Your task to perform on an android device: Go to accessibility settings Image 0: 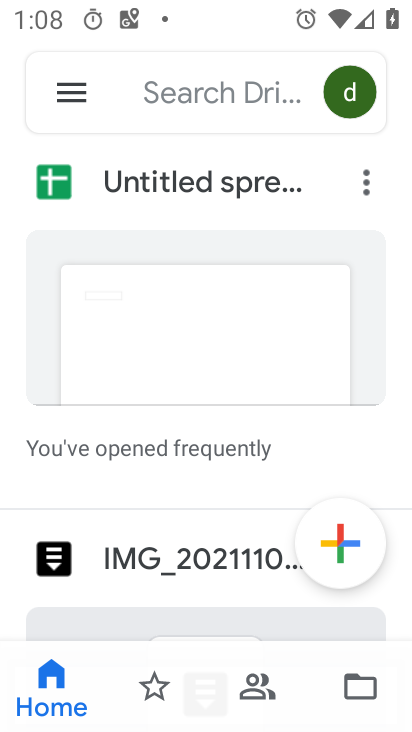
Step 0: press back button
Your task to perform on an android device: Go to accessibility settings Image 1: 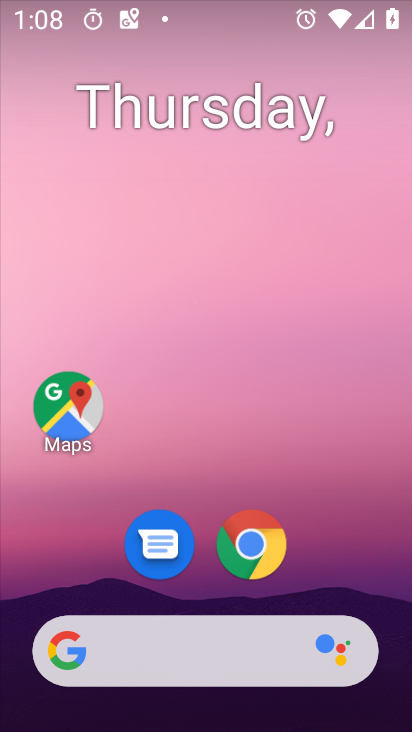
Step 1: drag from (84, 581) to (353, 200)
Your task to perform on an android device: Go to accessibility settings Image 2: 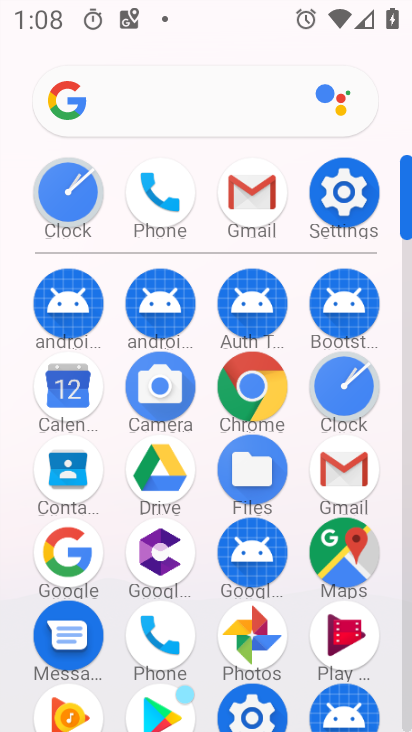
Step 2: click (331, 179)
Your task to perform on an android device: Go to accessibility settings Image 3: 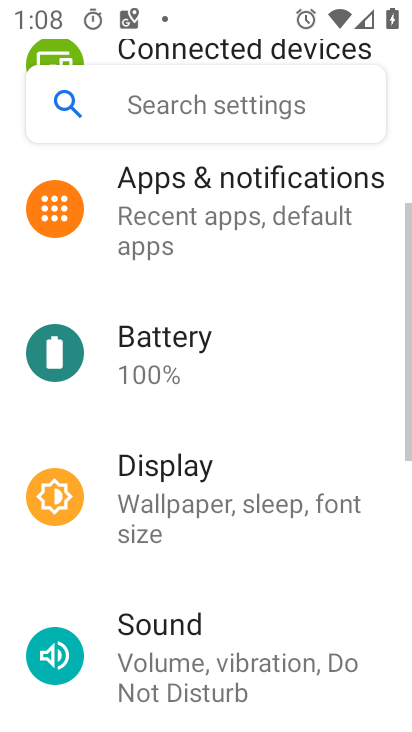
Step 3: drag from (122, 647) to (363, 63)
Your task to perform on an android device: Go to accessibility settings Image 4: 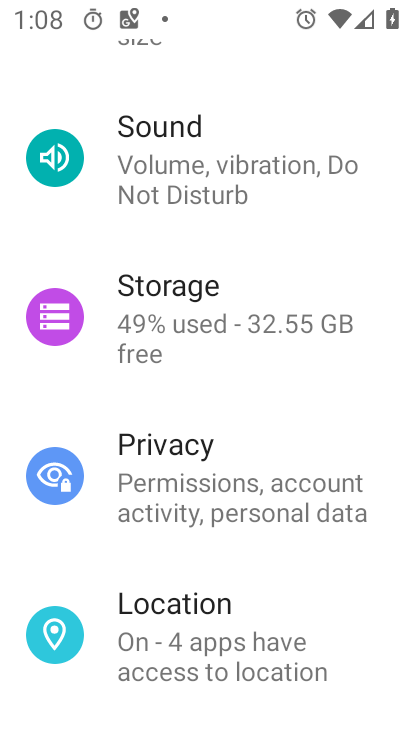
Step 4: drag from (172, 602) to (325, 246)
Your task to perform on an android device: Go to accessibility settings Image 5: 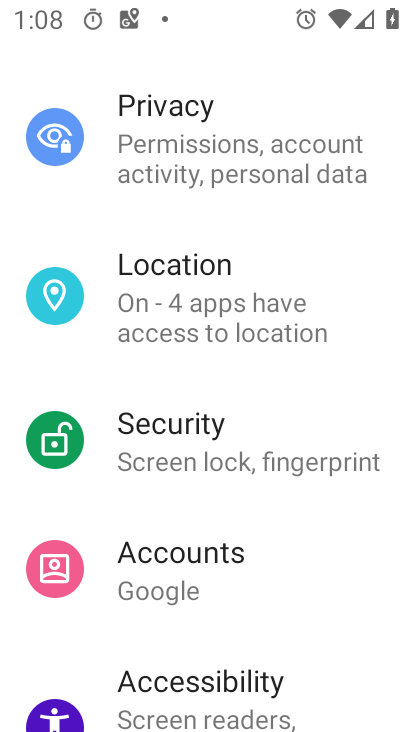
Step 5: click (162, 681)
Your task to perform on an android device: Go to accessibility settings Image 6: 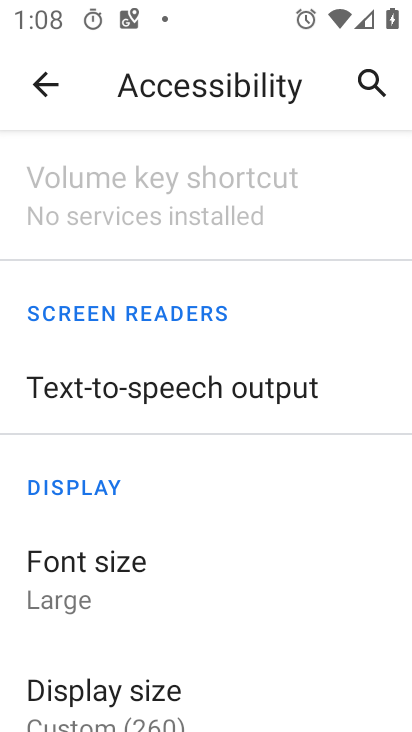
Step 6: task complete